Your task to perform on an android device: turn off airplane mode Image 0: 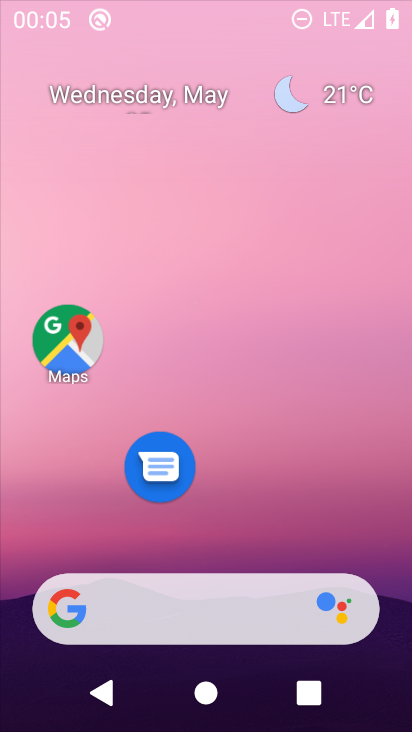
Step 0: click (231, 99)
Your task to perform on an android device: turn off airplane mode Image 1: 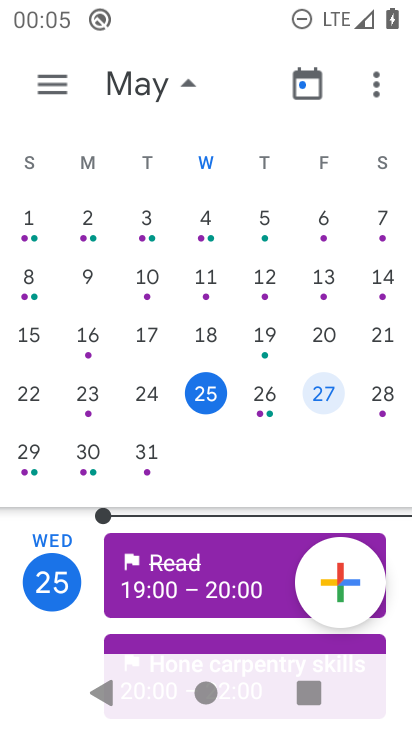
Step 1: drag from (243, 456) to (249, 53)
Your task to perform on an android device: turn off airplane mode Image 2: 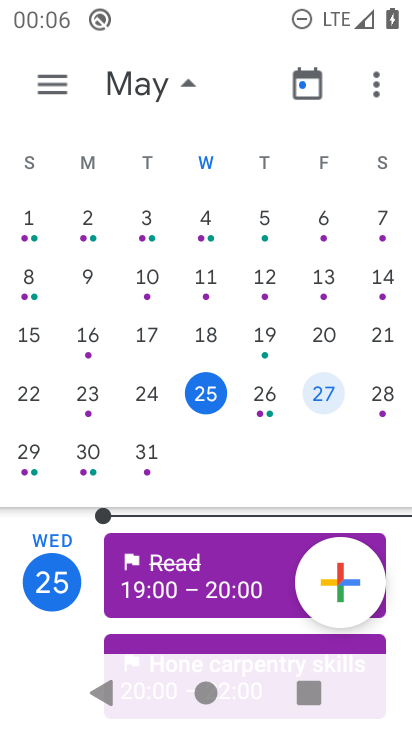
Step 2: press home button
Your task to perform on an android device: turn off airplane mode Image 3: 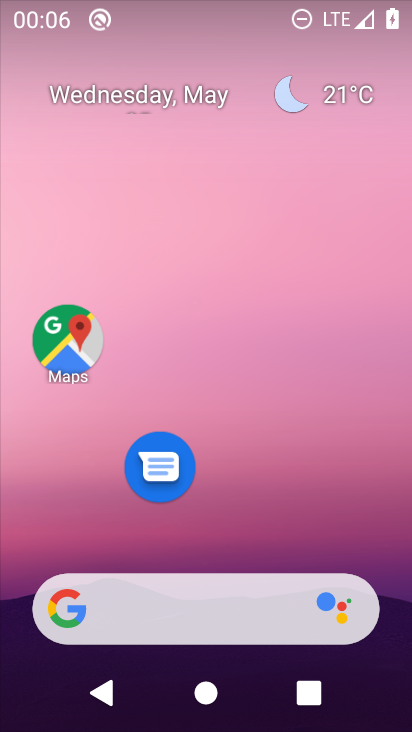
Step 3: drag from (266, 568) to (305, 145)
Your task to perform on an android device: turn off airplane mode Image 4: 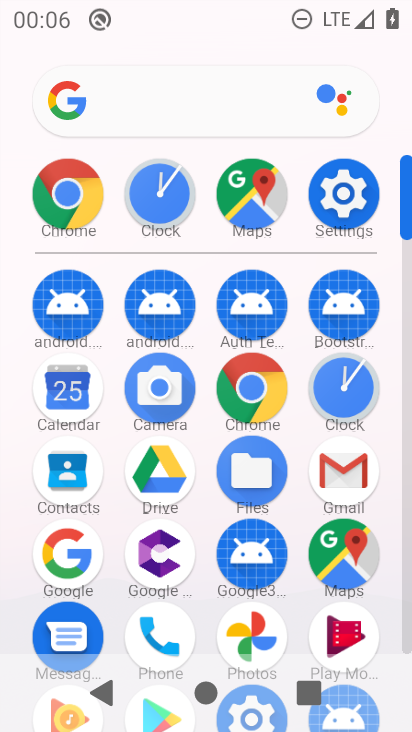
Step 4: click (346, 187)
Your task to perform on an android device: turn off airplane mode Image 5: 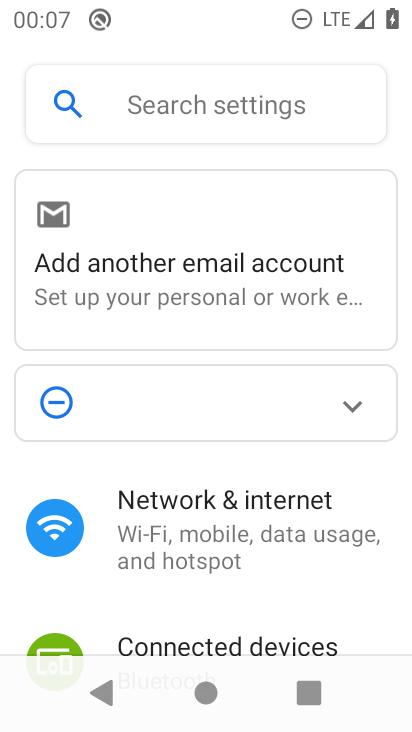
Step 5: drag from (248, 612) to (287, 147)
Your task to perform on an android device: turn off airplane mode Image 6: 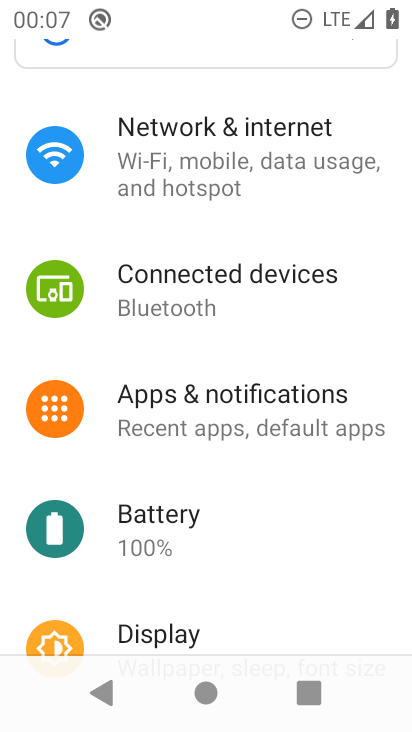
Step 6: drag from (230, 595) to (349, 218)
Your task to perform on an android device: turn off airplane mode Image 7: 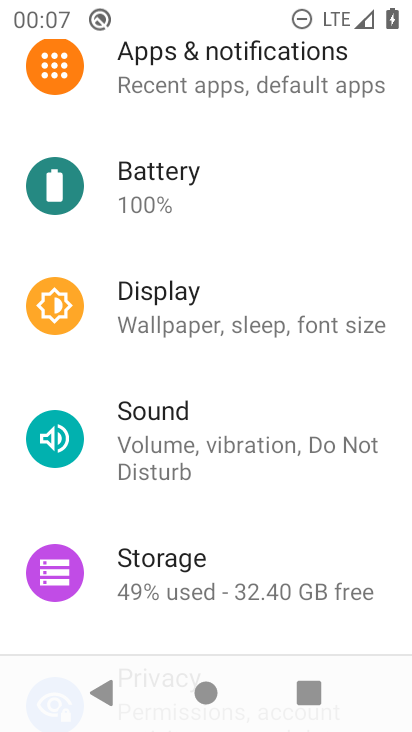
Step 7: drag from (349, 209) to (397, 400)
Your task to perform on an android device: turn off airplane mode Image 8: 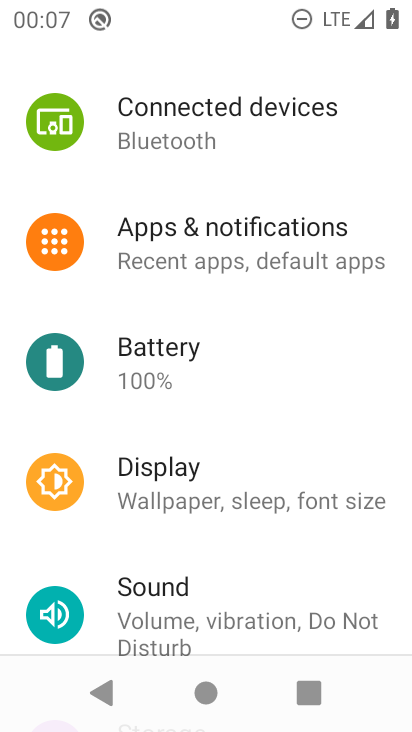
Step 8: drag from (274, 165) to (262, 547)
Your task to perform on an android device: turn off airplane mode Image 9: 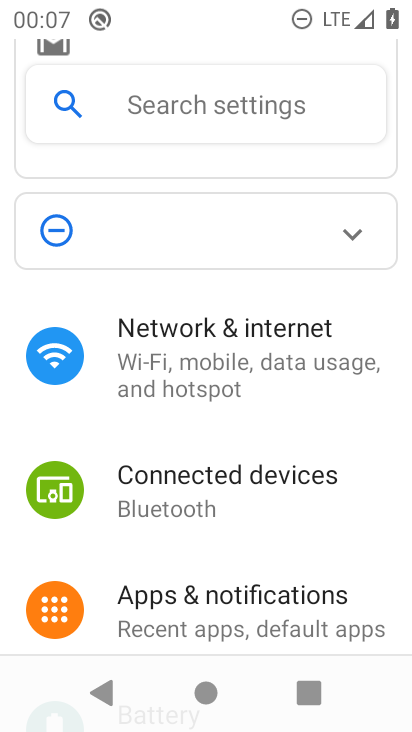
Step 9: click (243, 406)
Your task to perform on an android device: turn off airplane mode Image 10: 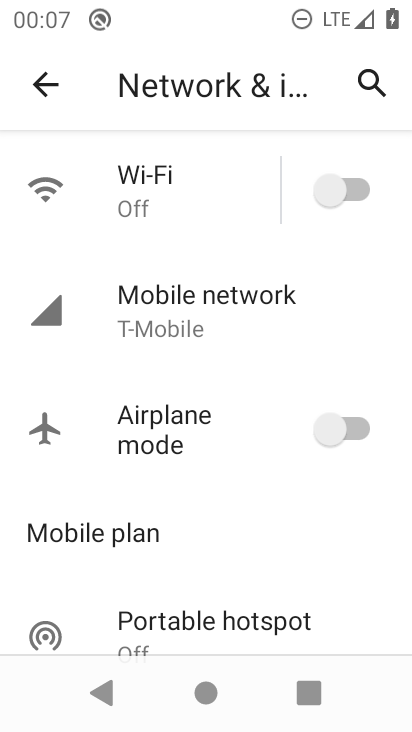
Step 10: task complete